Your task to perform on an android device: change the clock style Image 0: 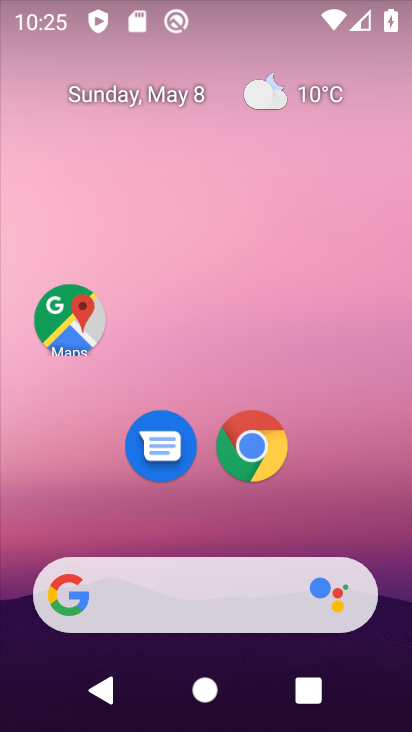
Step 0: drag from (366, 553) to (375, 6)
Your task to perform on an android device: change the clock style Image 1: 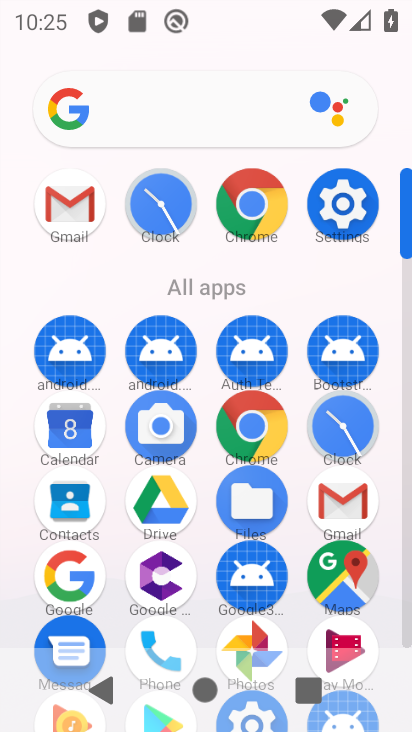
Step 1: click (159, 214)
Your task to perform on an android device: change the clock style Image 2: 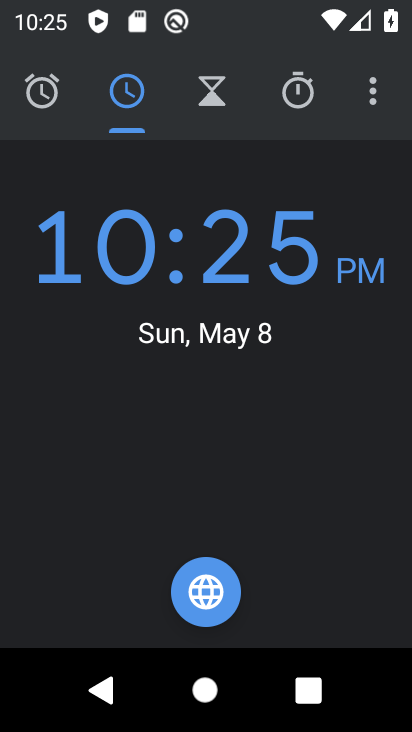
Step 2: click (376, 91)
Your task to perform on an android device: change the clock style Image 3: 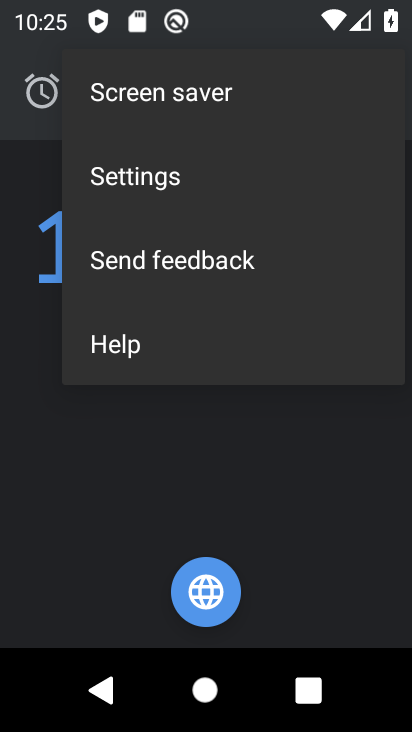
Step 3: click (162, 180)
Your task to perform on an android device: change the clock style Image 4: 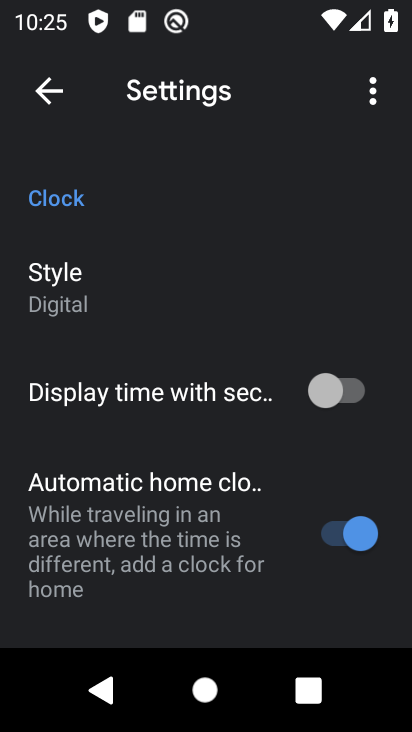
Step 4: click (68, 305)
Your task to perform on an android device: change the clock style Image 5: 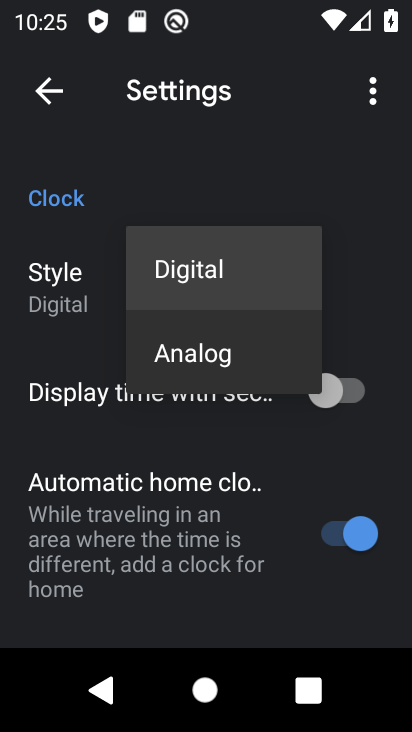
Step 5: click (201, 382)
Your task to perform on an android device: change the clock style Image 6: 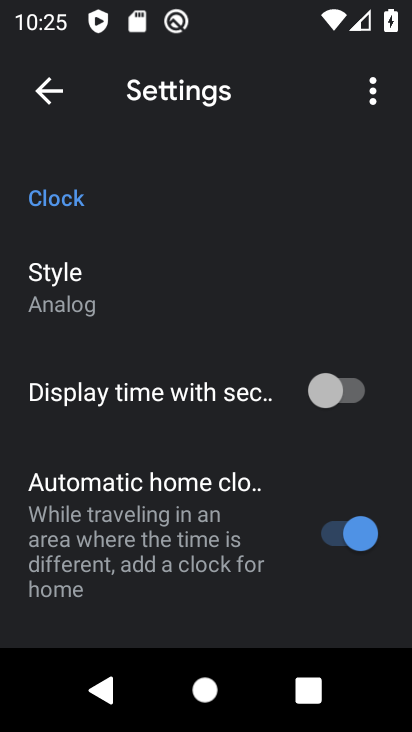
Step 6: task complete